Your task to perform on an android device: What's on my calendar today? Image 0: 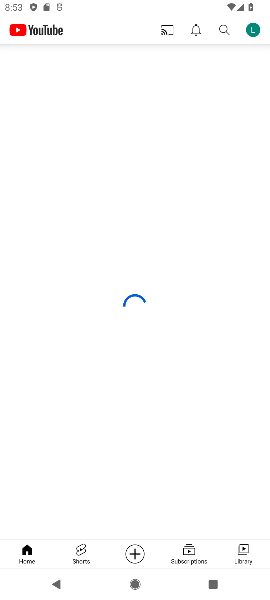
Step 0: press home button
Your task to perform on an android device: What's on my calendar today? Image 1: 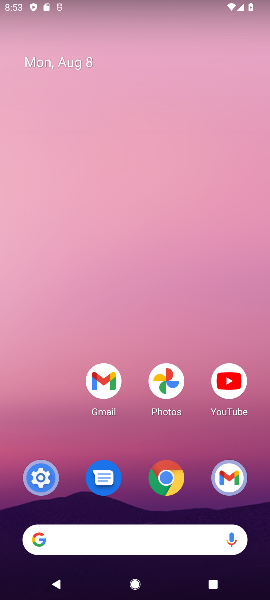
Step 1: drag from (113, 523) to (196, 131)
Your task to perform on an android device: What's on my calendar today? Image 2: 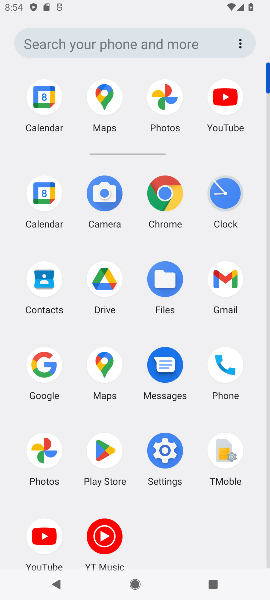
Step 2: click (40, 195)
Your task to perform on an android device: What's on my calendar today? Image 3: 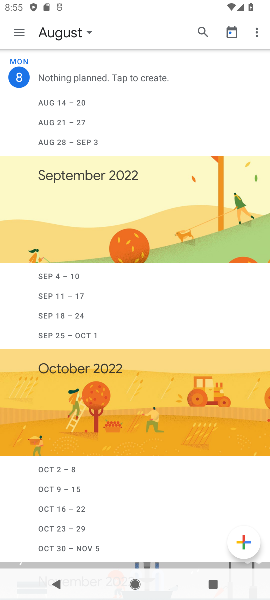
Step 3: task complete